Your task to perform on an android device: turn on showing notifications on the lock screen Image 0: 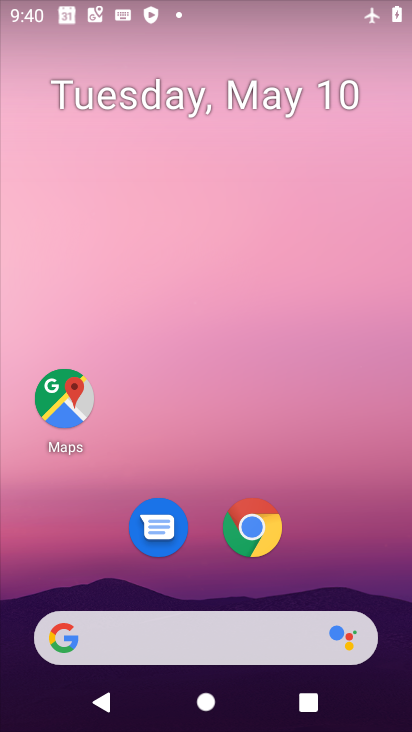
Step 0: drag from (311, 607) to (308, 282)
Your task to perform on an android device: turn on showing notifications on the lock screen Image 1: 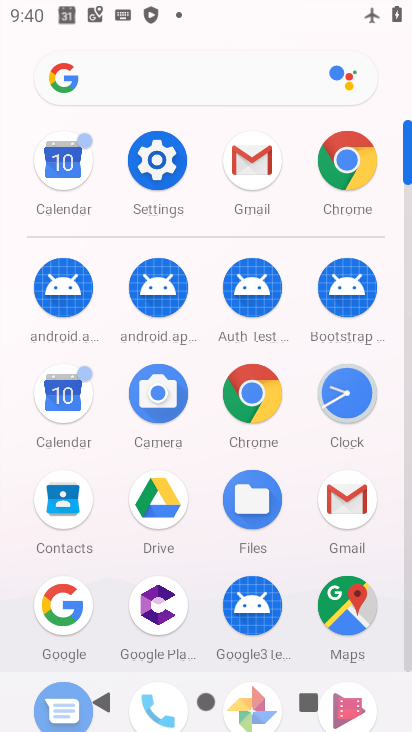
Step 1: click (158, 222)
Your task to perform on an android device: turn on showing notifications on the lock screen Image 2: 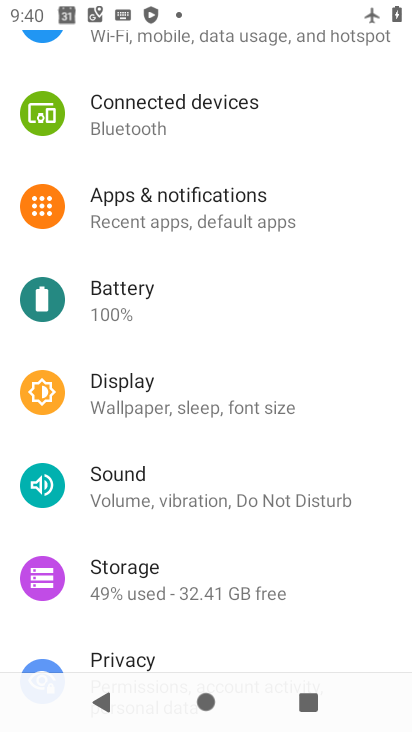
Step 2: click (158, 222)
Your task to perform on an android device: turn on showing notifications on the lock screen Image 3: 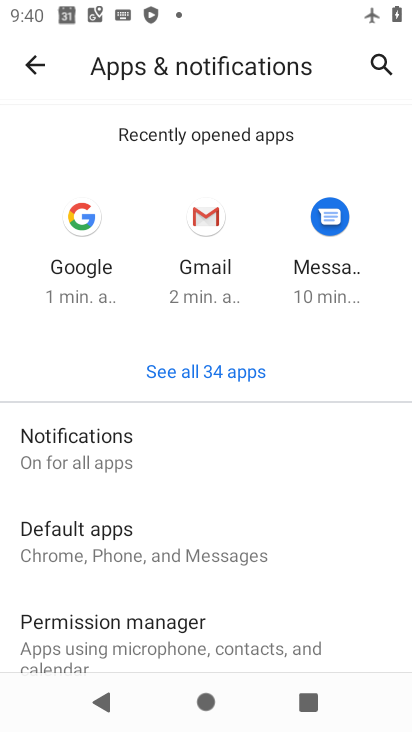
Step 3: click (117, 438)
Your task to perform on an android device: turn on showing notifications on the lock screen Image 4: 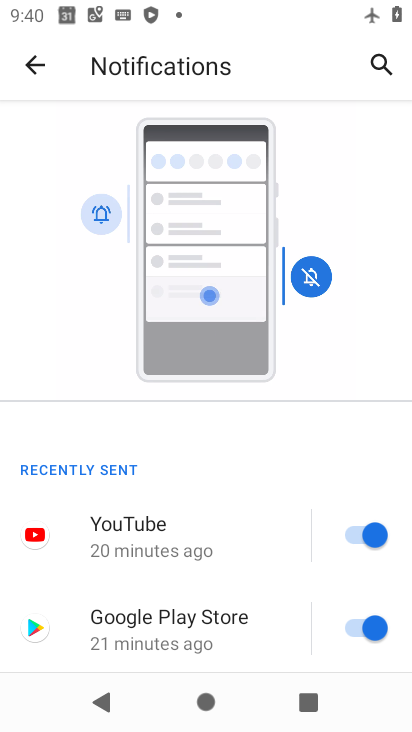
Step 4: drag from (223, 617) to (230, 270)
Your task to perform on an android device: turn on showing notifications on the lock screen Image 5: 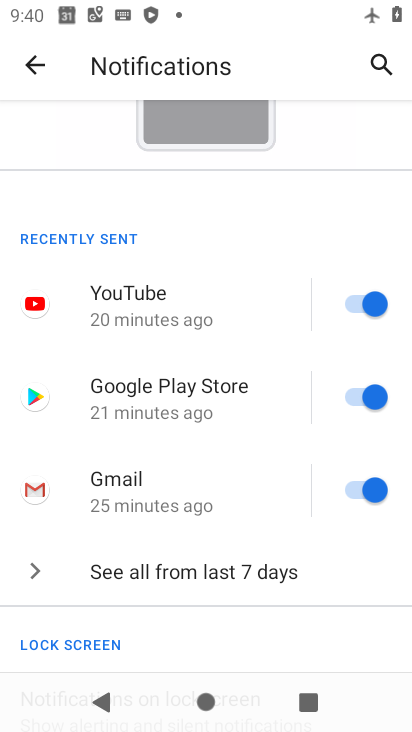
Step 5: drag from (178, 632) to (231, 318)
Your task to perform on an android device: turn on showing notifications on the lock screen Image 6: 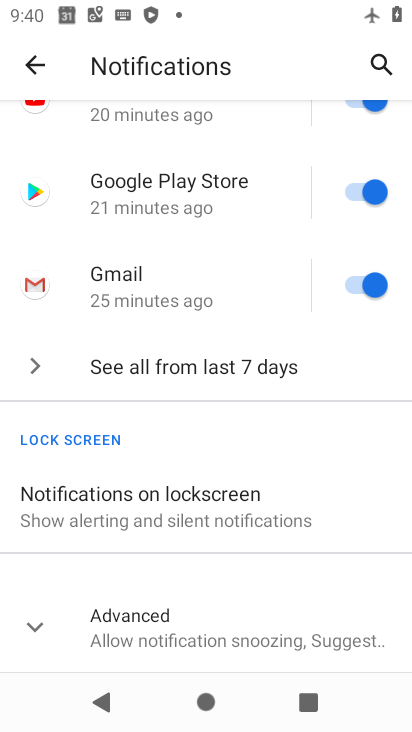
Step 6: click (154, 509)
Your task to perform on an android device: turn on showing notifications on the lock screen Image 7: 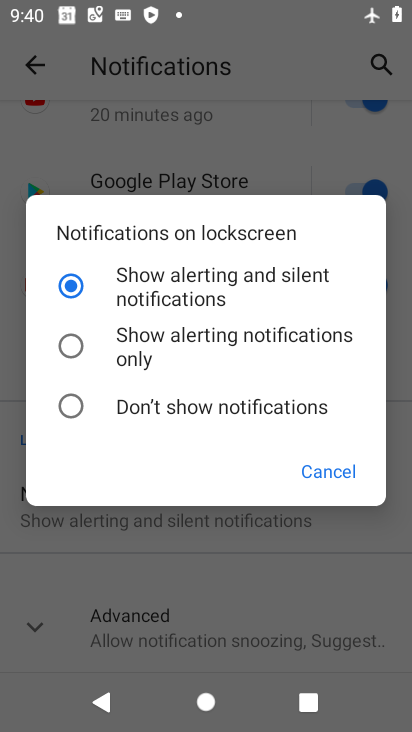
Step 7: task complete